Your task to perform on an android device: What is the news today? Image 0: 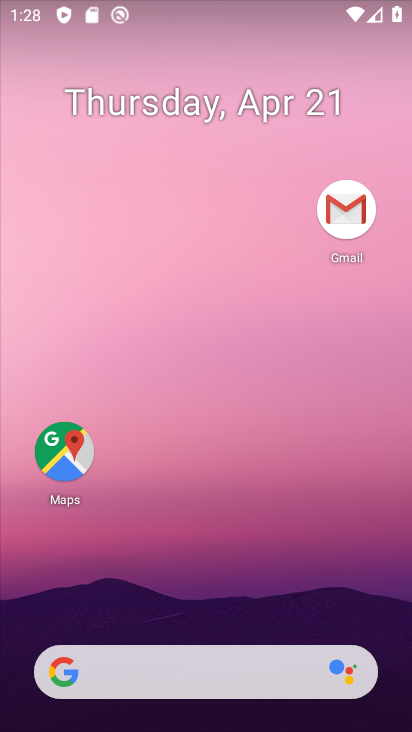
Step 0: drag from (259, 621) to (208, 41)
Your task to perform on an android device: What is the news today? Image 1: 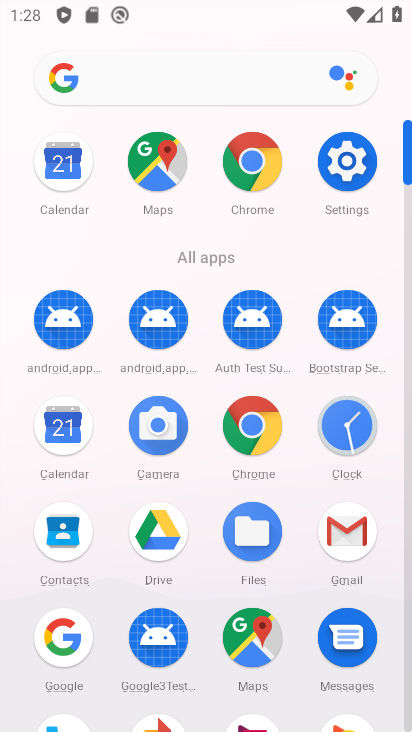
Step 1: click (255, 178)
Your task to perform on an android device: What is the news today? Image 2: 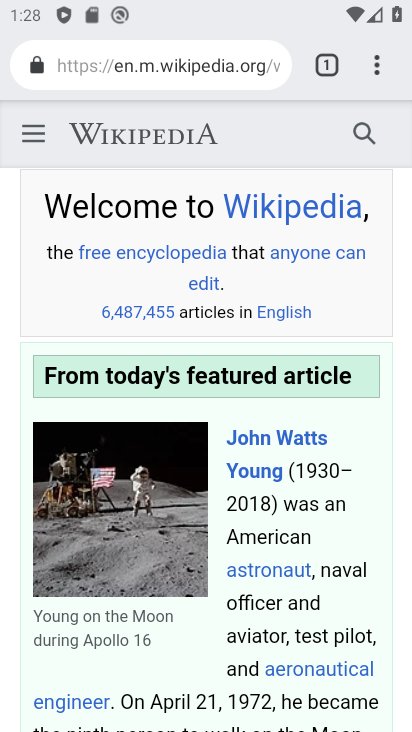
Step 2: click (228, 65)
Your task to perform on an android device: What is the news today? Image 3: 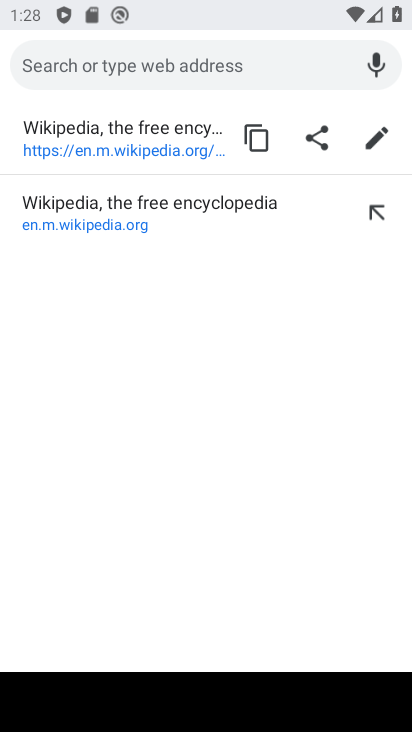
Step 3: type "news today"
Your task to perform on an android device: What is the news today? Image 4: 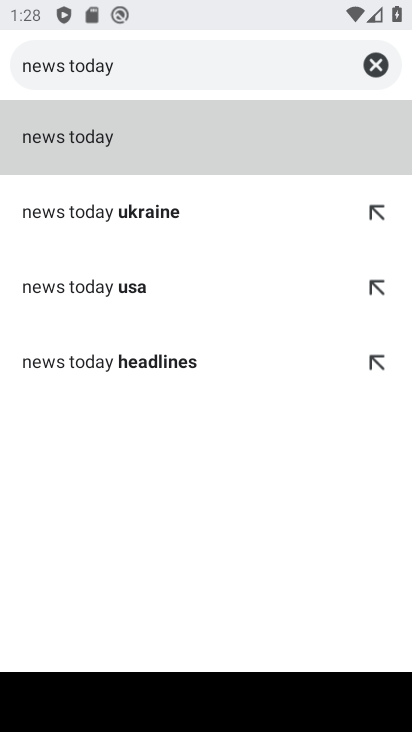
Step 4: click (107, 131)
Your task to perform on an android device: What is the news today? Image 5: 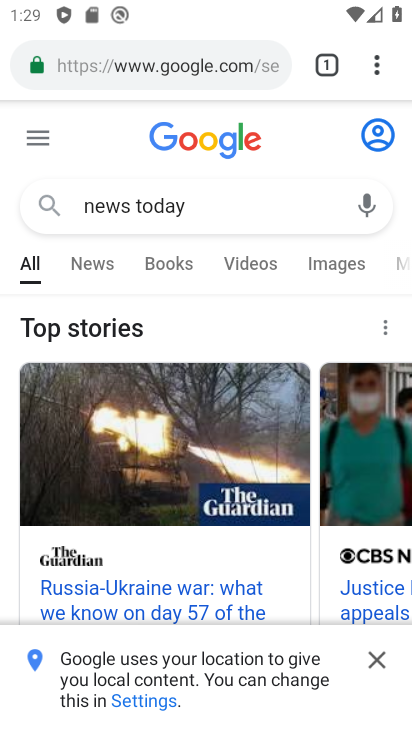
Step 5: task complete